Your task to perform on an android device: turn on bluetooth scan Image 0: 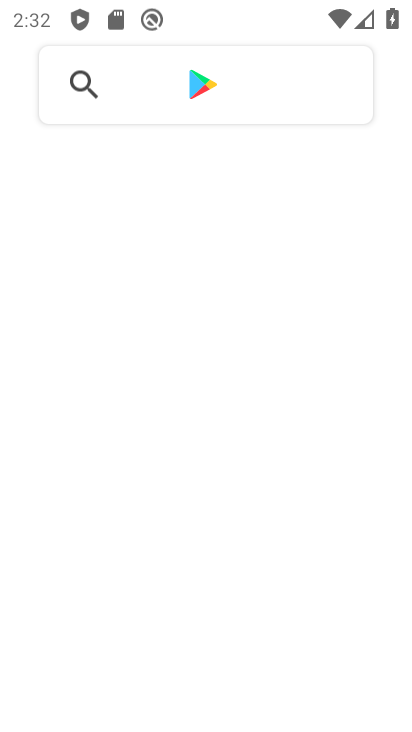
Step 0: press home button
Your task to perform on an android device: turn on bluetooth scan Image 1: 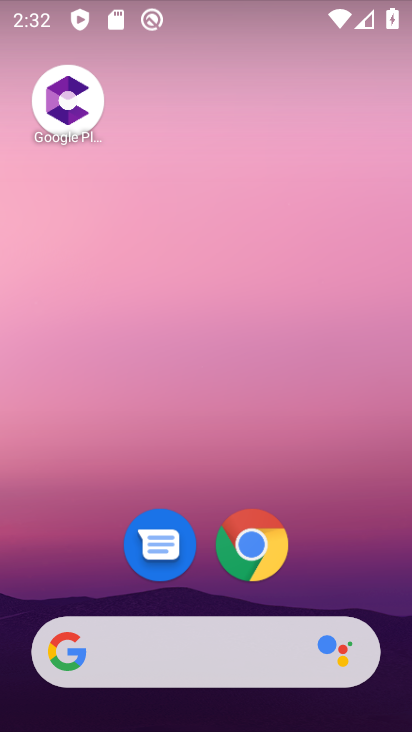
Step 1: drag from (165, 651) to (293, 171)
Your task to perform on an android device: turn on bluetooth scan Image 2: 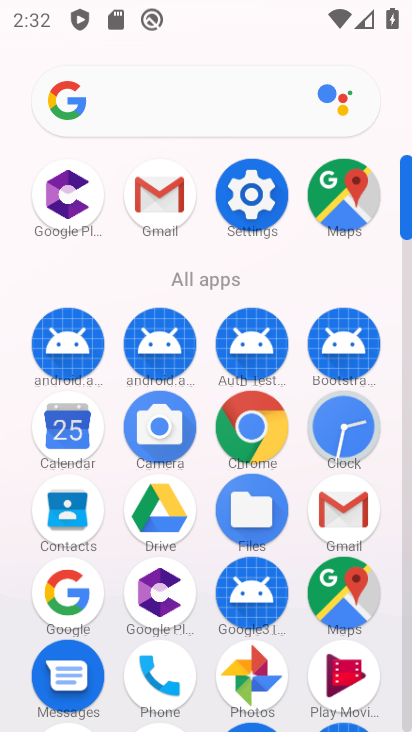
Step 2: click (244, 212)
Your task to perform on an android device: turn on bluetooth scan Image 3: 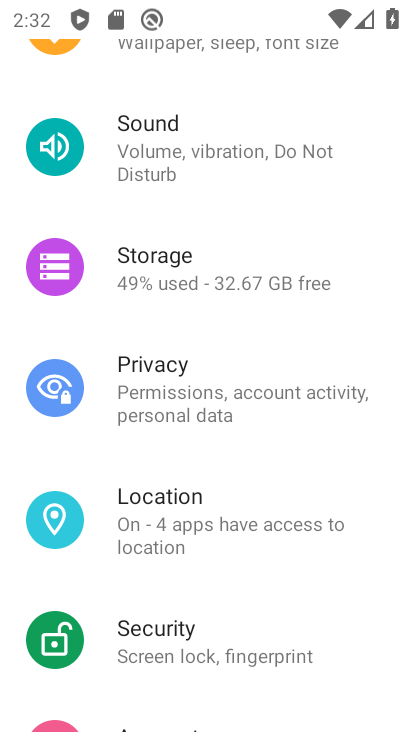
Step 3: drag from (220, 599) to (296, 94)
Your task to perform on an android device: turn on bluetooth scan Image 4: 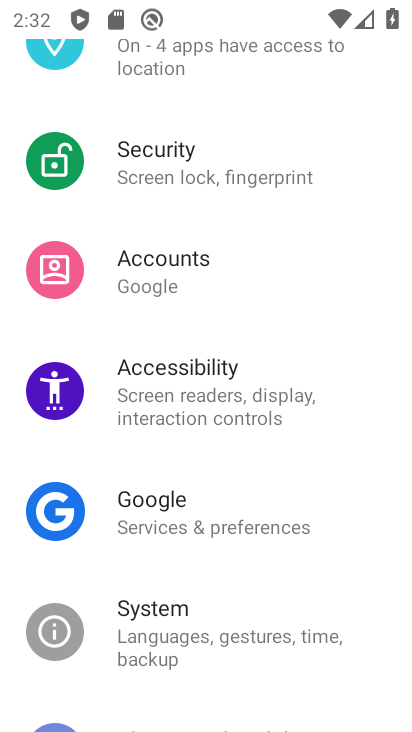
Step 4: drag from (215, 678) to (334, 235)
Your task to perform on an android device: turn on bluetooth scan Image 5: 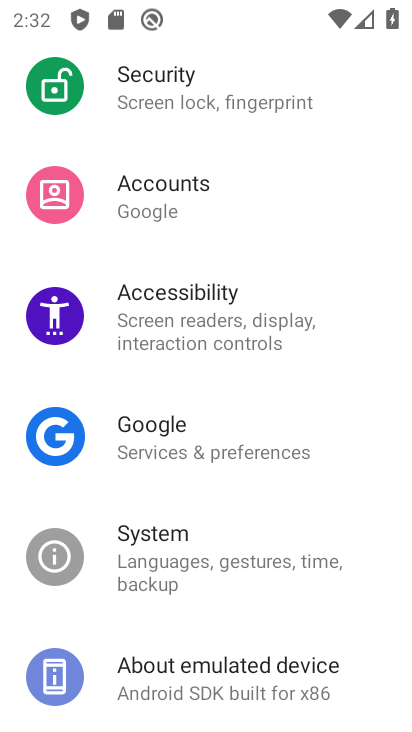
Step 5: drag from (264, 201) to (157, 690)
Your task to perform on an android device: turn on bluetooth scan Image 6: 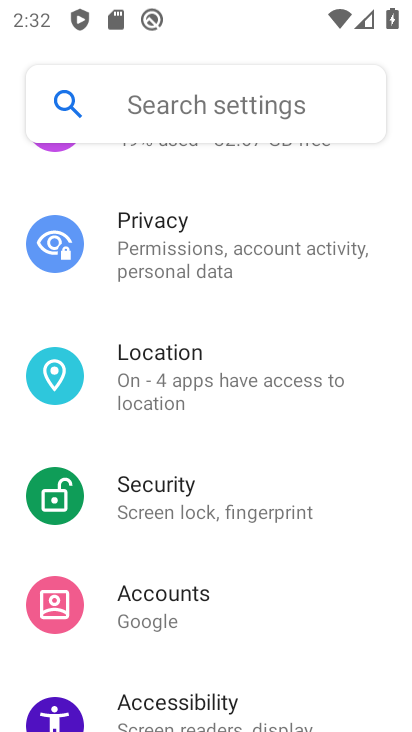
Step 6: drag from (280, 192) to (250, 612)
Your task to perform on an android device: turn on bluetooth scan Image 7: 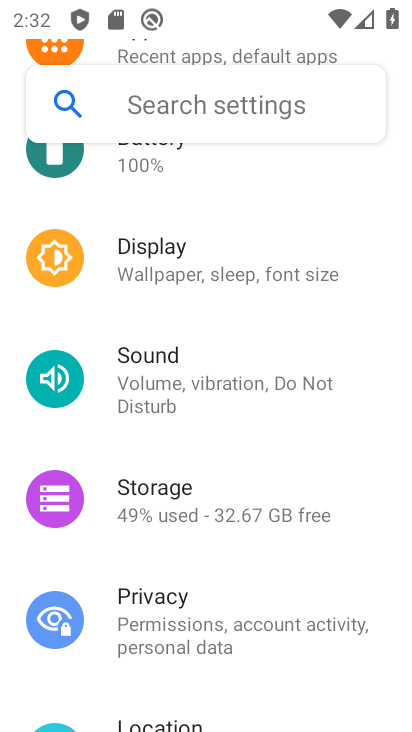
Step 7: drag from (220, 593) to (315, 274)
Your task to perform on an android device: turn on bluetooth scan Image 8: 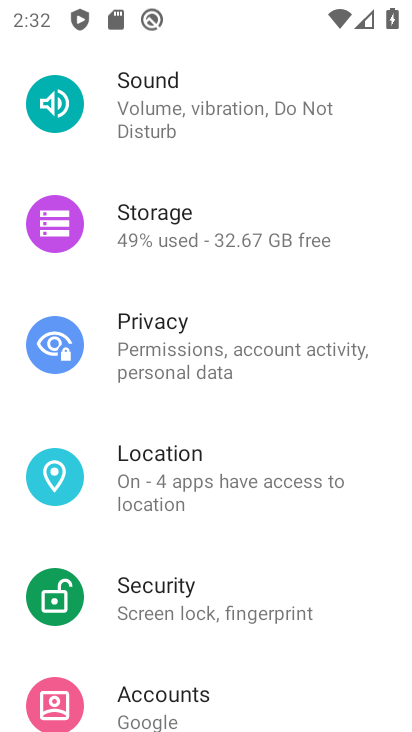
Step 8: click (178, 491)
Your task to perform on an android device: turn on bluetooth scan Image 9: 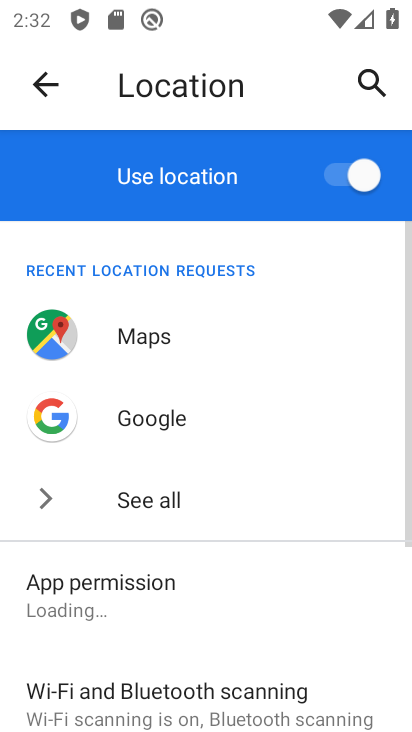
Step 9: drag from (168, 639) to (263, 334)
Your task to perform on an android device: turn on bluetooth scan Image 10: 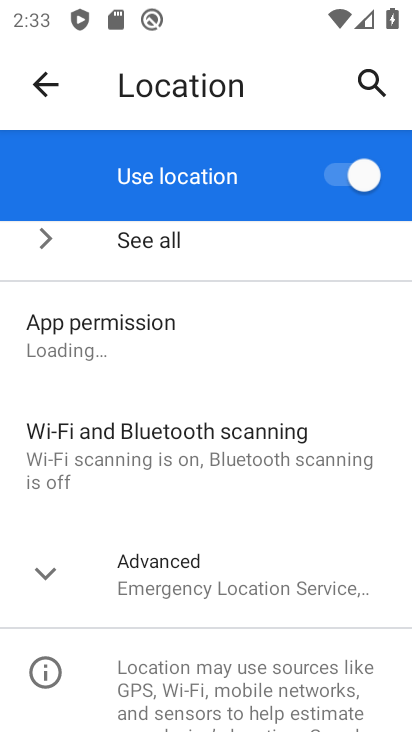
Step 10: click (180, 468)
Your task to perform on an android device: turn on bluetooth scan Image 11: 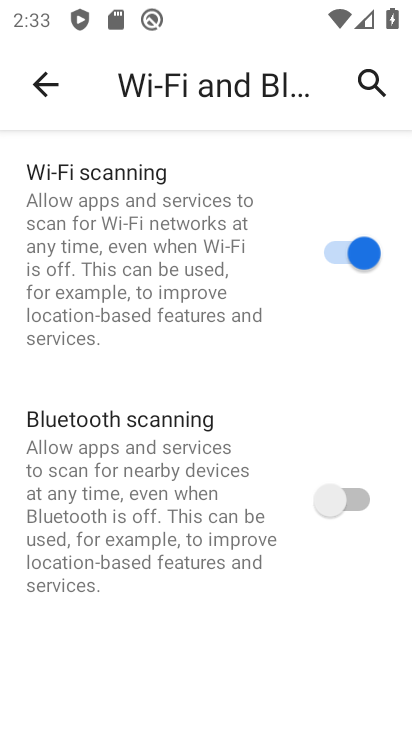
Step 11: click (347, 501)
Your task to perform on an android device: turn on bluetooth scan Image 12: 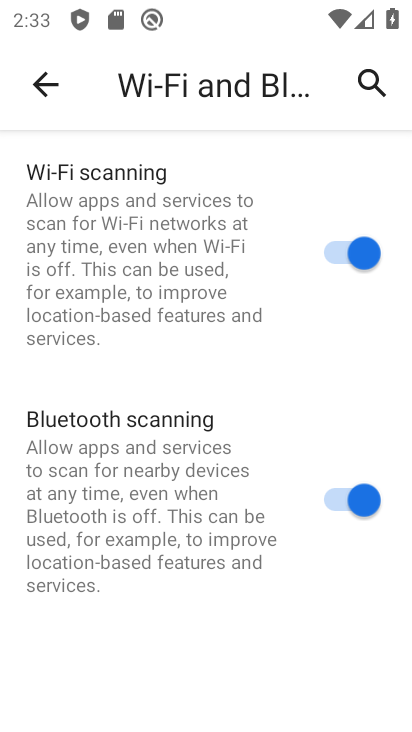
Step 12: task complete